Your task to perform on an android device: Go to Google maps Image 0: 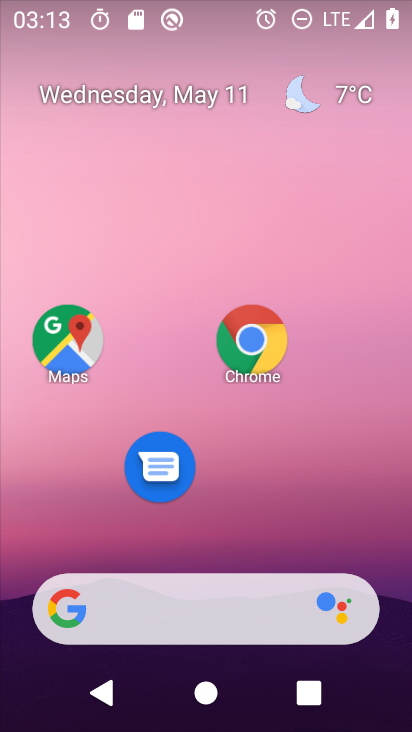
Step 0: click (63, 346)
Your task to perform on an android device: Go to Google maps Image 1: 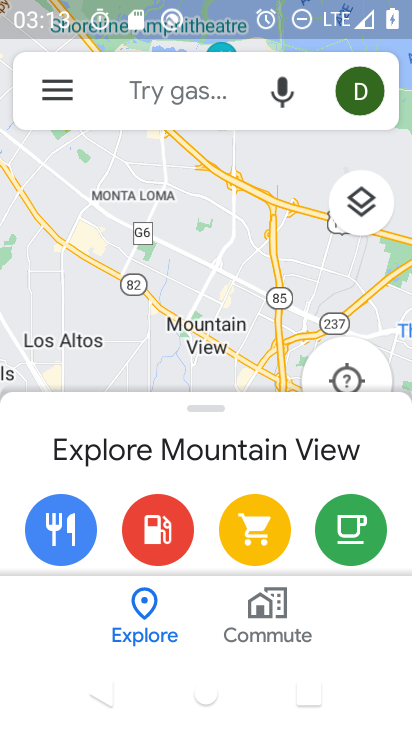
Step 1: task complete